Your task to perform on an android device: Show me popular games on the Play Store Image 0: 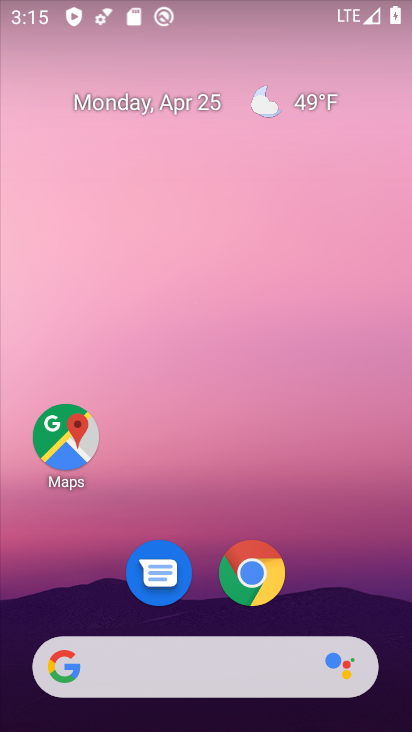
Step 0: drag from (353, 597) to (285, 155)
Your task to perform on an android device: Show me popular games on the Play Store Image 1: 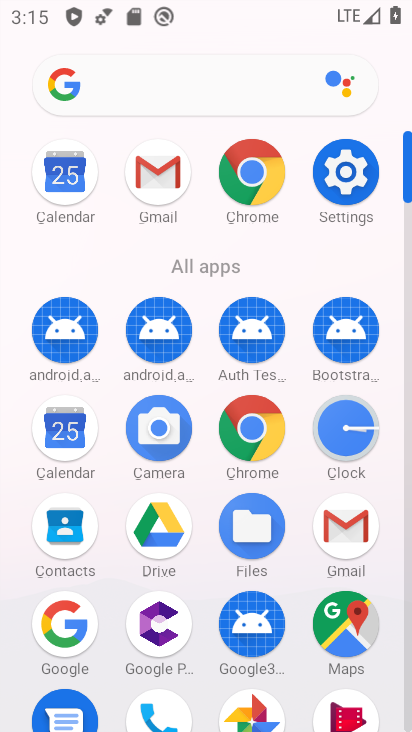
Step 1: drag from (286, 225) to (275, 115)
Your task to perform on an android device: Show me popular games on the Play Store Image 2: 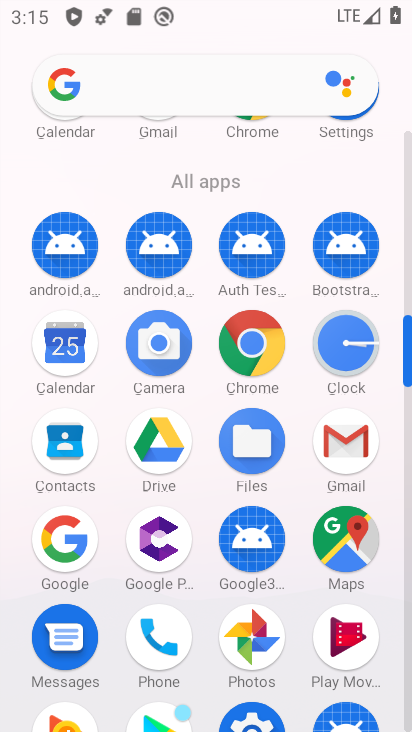
Step 2: click (150, 713)
Your task to perform on an android device: Show me popular games on the Play Store Image 3: 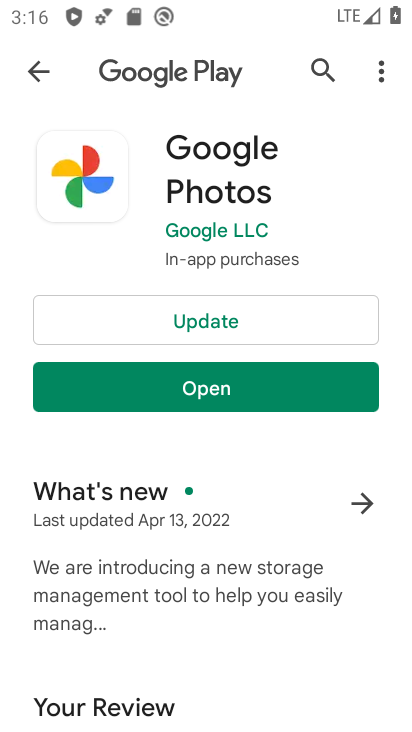
Step 3: click (39, 67)
Your task to perform on an android device: Show me popular games on the Play Store Image 4: 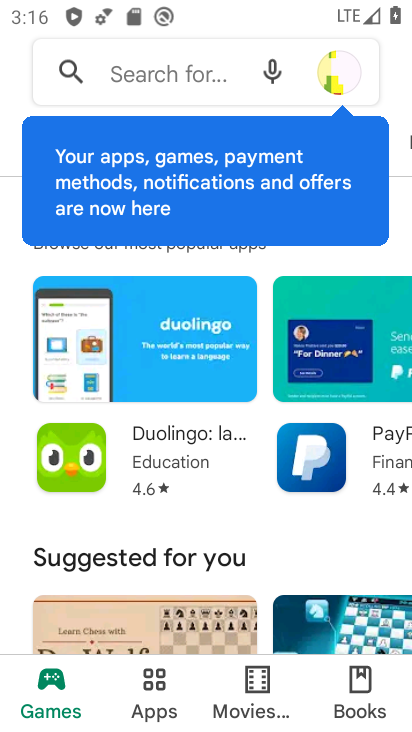
Step 4: drag from (191, 590) to (132, 119)
Your task to perform on an android device: Show me popular games on the Play Store Image 5: 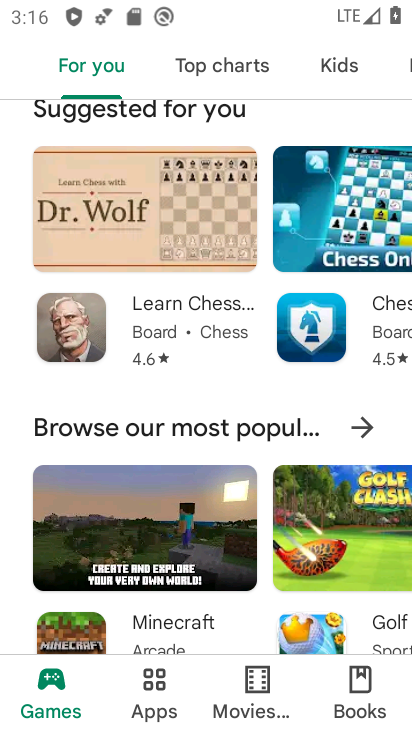
Step 5: click (225, 47)
Your task to perform on an android device: Show me popular games on the Play Store Image 6: 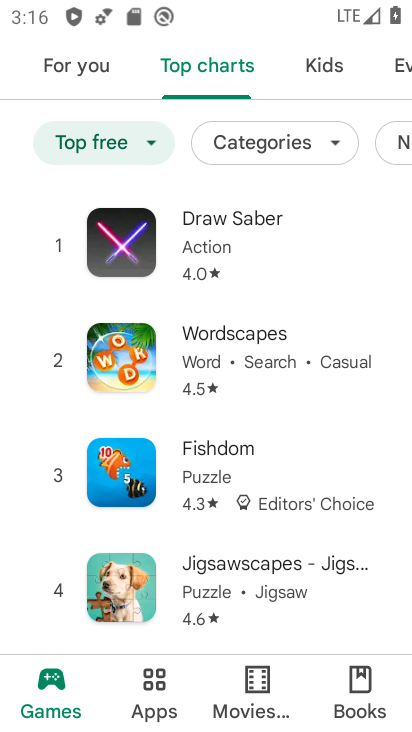
Step 6: task complete